Your task to perform on an android device: Show me popular games on the Play Store Image 0: 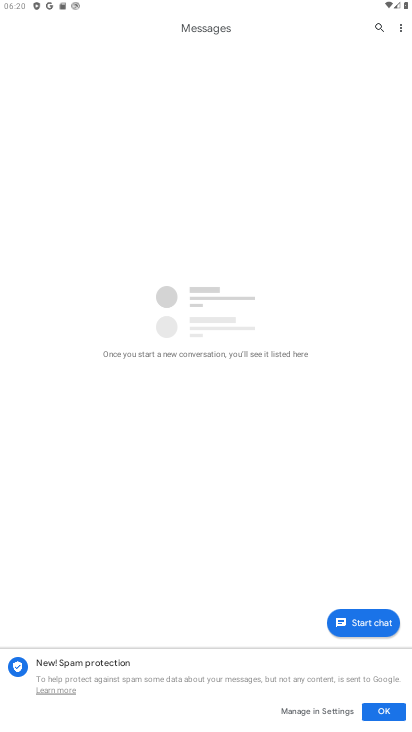
Step 0: press home button
Your task to perform on an android device: Show me popular games on the Play Store Image 1: 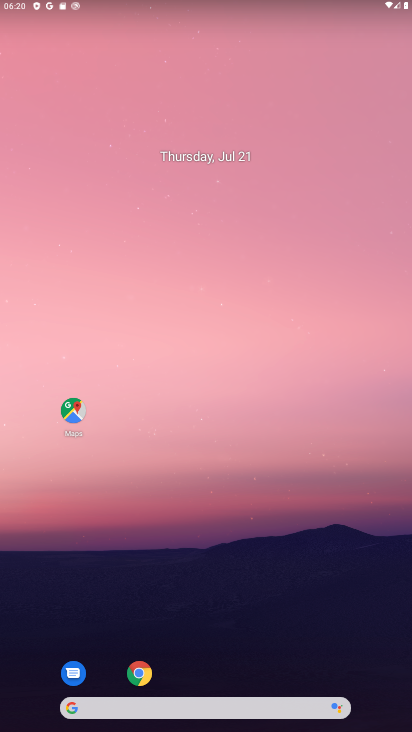
Step 1: drag from (215, 638) to (194, 138)
Your task to perform on an android device: Show me popular games on the Play Store Image 2: 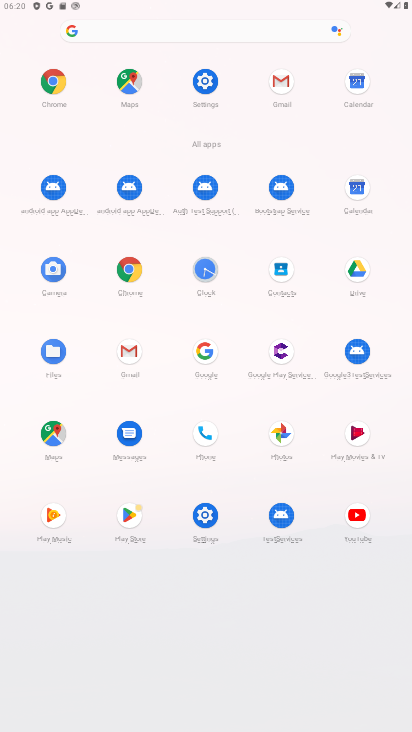
Step 2: click (132, 524)
Your task to perform on an android device: Show me popular games on the Play Store Image 3: 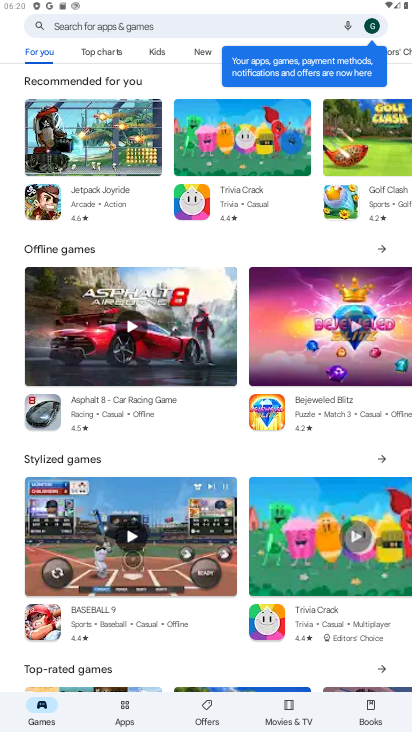
Step 3: task complete